Your task to perform on an android device: Go to internet settings Image 0: 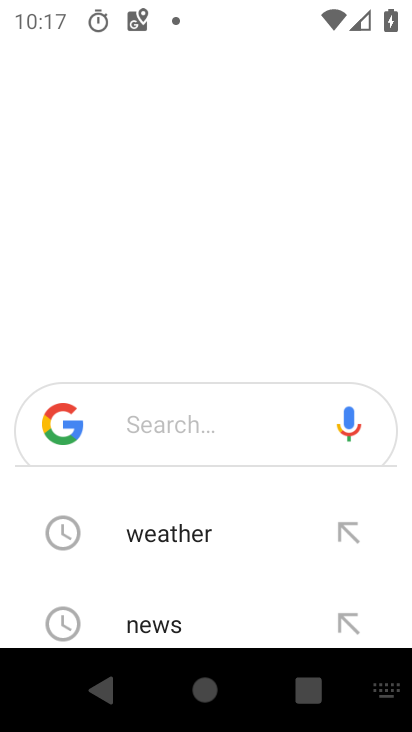
Step 0: drag from (258, 626) to (230, 262)
Your task to perform on an android device: Go to internet settings Image 1: 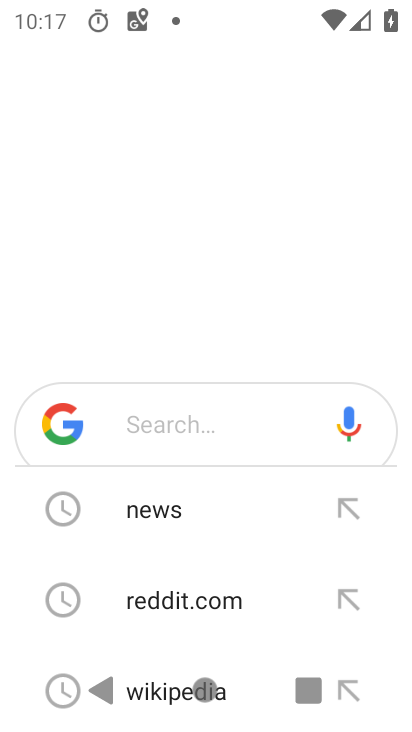
Step 1: press back button
Your task to perform on an android device: Go to internet settings Image 2: 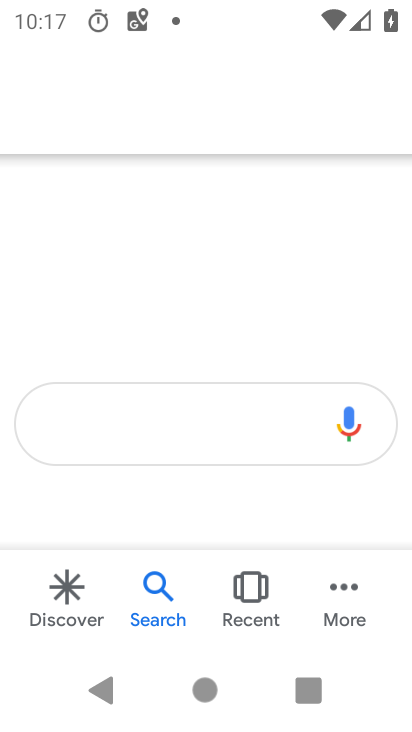
Step 2: press home button
Your task to perform on an android device: Go to internet settings Image 3: 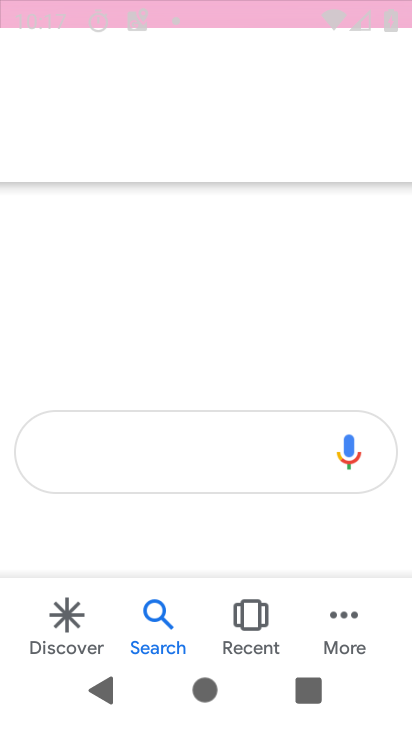
Step 3: press home button
Your task to perform on an android device: Go to internet settings Image 4: 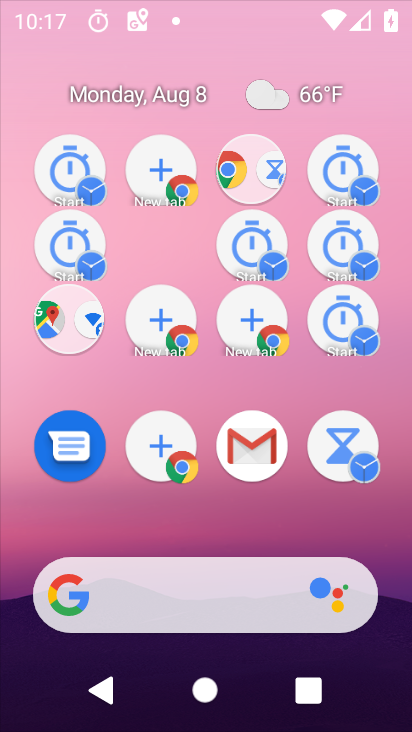
Step 4: drag from (281, 470) to (275, 42)
Your task to perform on an android device: Go to internet settings Image 5: 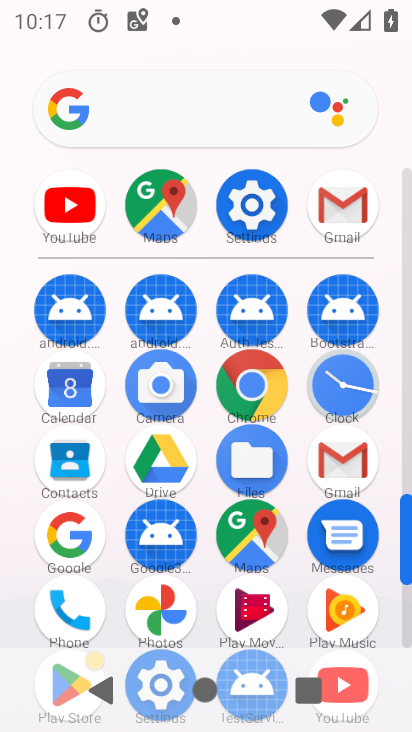
Step 5: drag from (261, 574) to (240, 144)
Your task to perform on an android device: Go to internet settings Image 6: 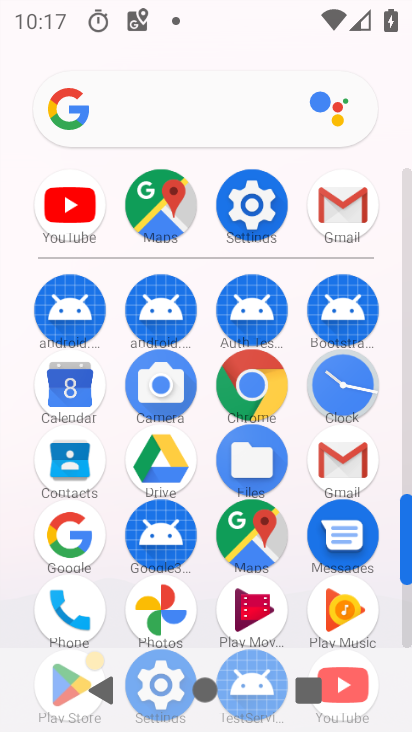
Step 6: click (243, 188)
Your task to perform on an android device: Go to internet settings Image 7: 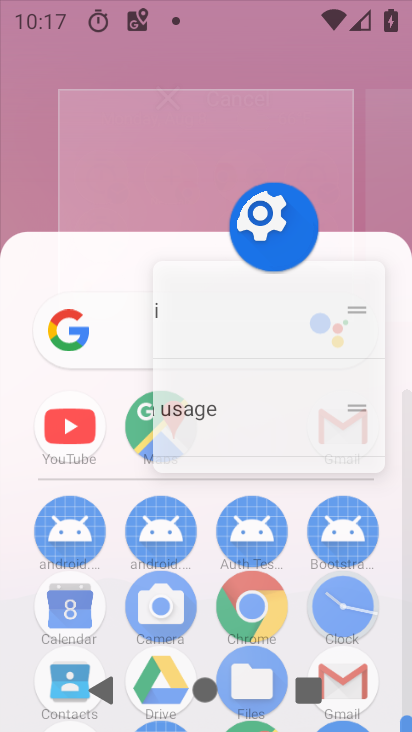
Step 7: click (259, 212)
Your task to perform on an android device: Go to internet settings Image 8: 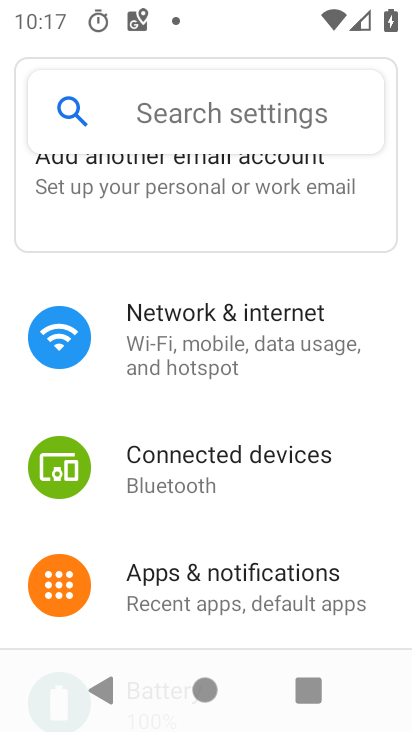
Step 8: click (208, 334)
Your task to perform on an android device: Go to internet settings Image 9: 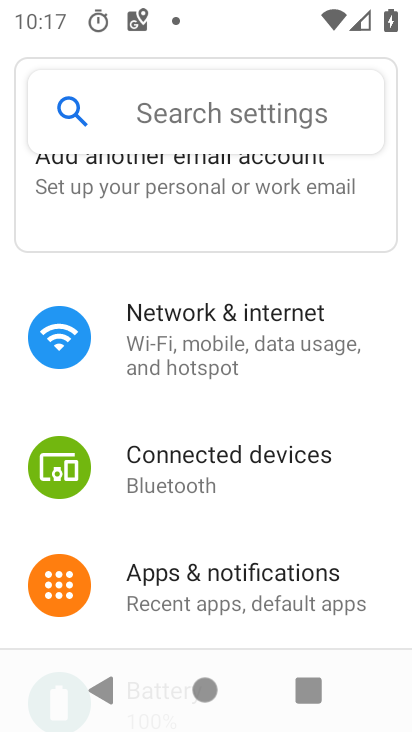
Step 9: click (208, 334)
Your task to perform on an android device: Go to internet settings Image 10: 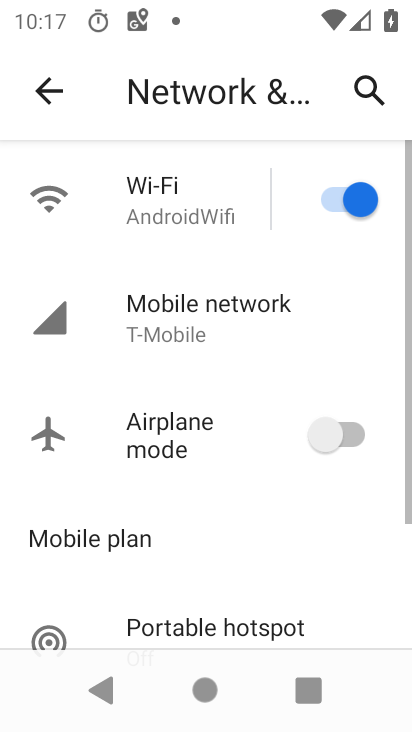
Step 10: click (208, 335)
Your task to perform on an android device: Go to internet settings Image 11: 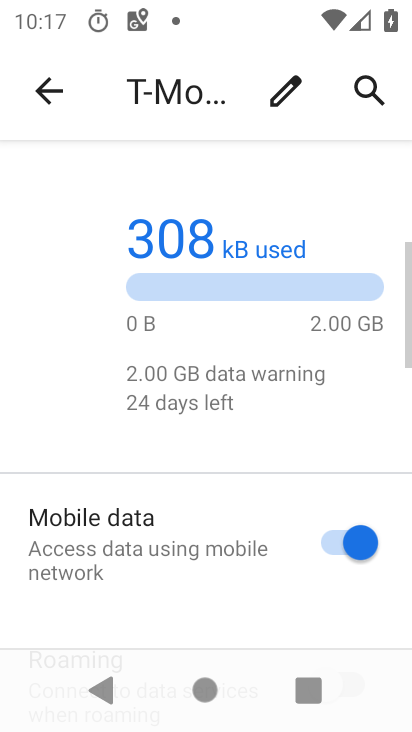
Step 11: click (36, 85)
Your task to perform on an android device: Go to internet settings Image 12: 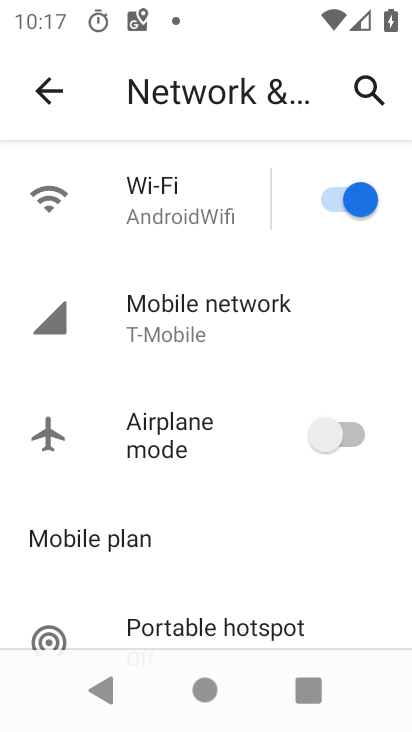
Step 12: task complete